Your task to perform on an android device: search for starred emails in the gmail app Image 0: 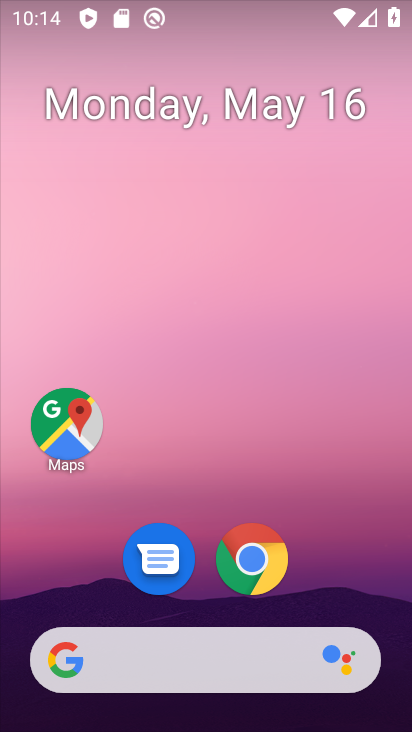
Step 0: drag from (330, 512) to (259, 24)
Your task to perform on an android device: search for starred emails in the gmail app Image 1: 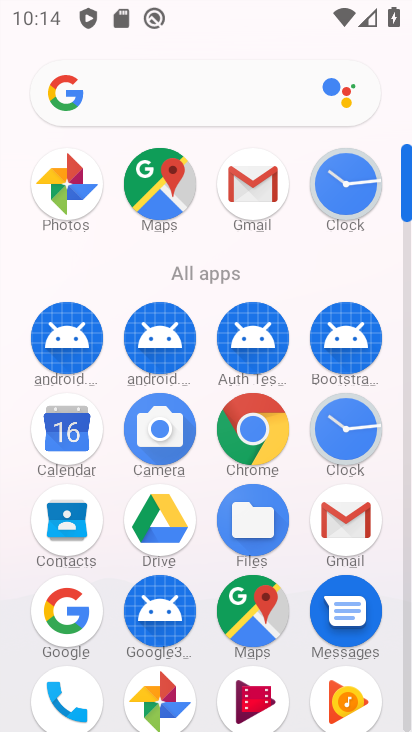
Step 1: drag from (11, 493) to (6, 211)
Your task to perform on an android device: search for starred emails in the gmail app Image 2: 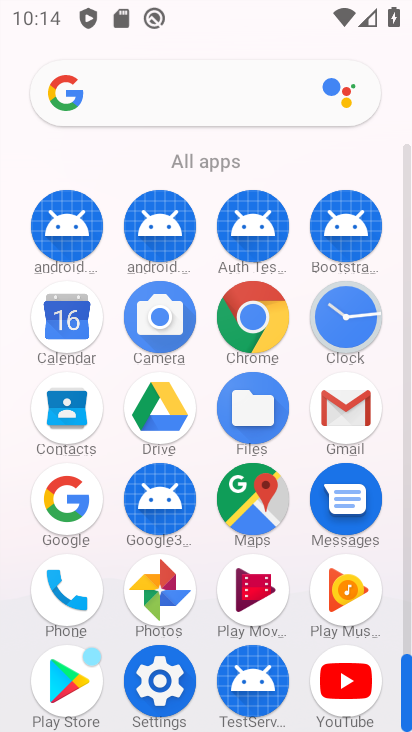
Step 2: click (345, 401)
Your task to perform on an android device: search for starred emails in the gmail app Image 3: 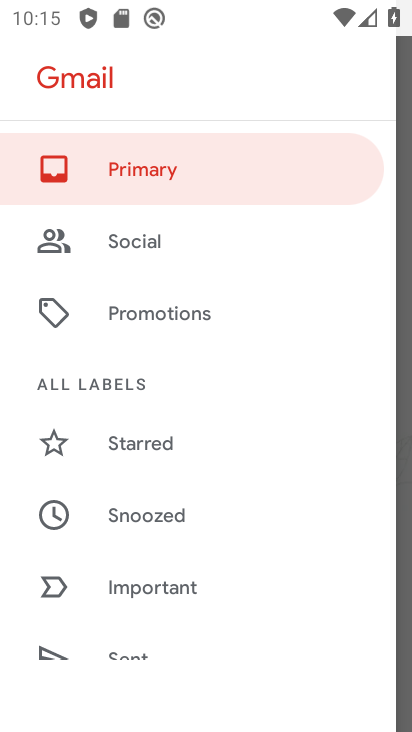
Step 3: click (187, 433)
Your task to perform on an android device: search for starred emails in the gmail app Image 4: 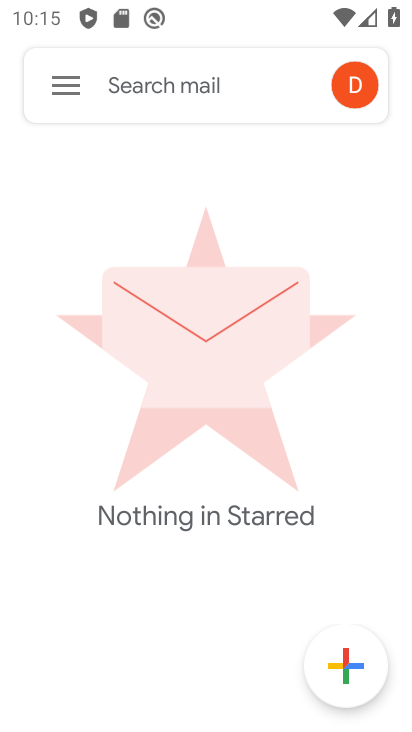
Step 4: task complete